Your task to perform on an android device: delete a single message in the gmail app Image 0: 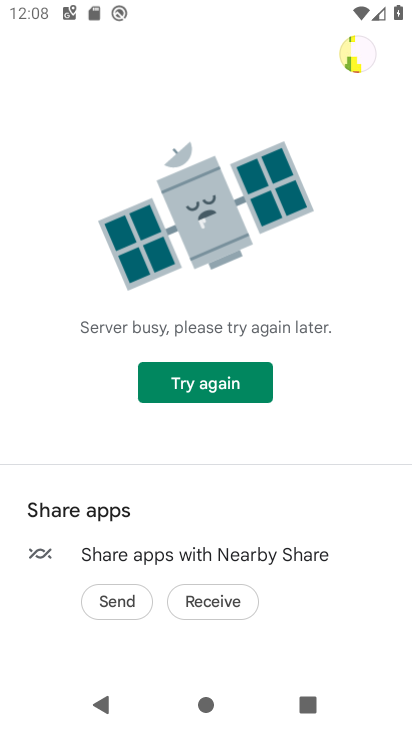
Step 0: press home button
Your task to perform on an android device: delete a single message in the gmail app Image 1: 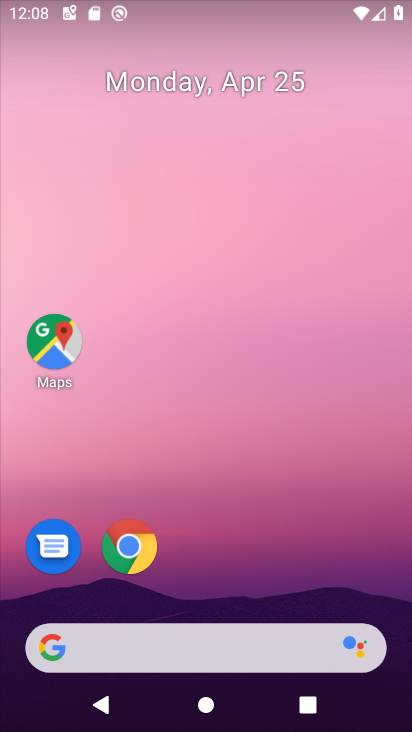
Step 1: drag from (219, 555) to (246, 88)
Your task to perform on an android device: delete a single message in the gmail app Image 2: 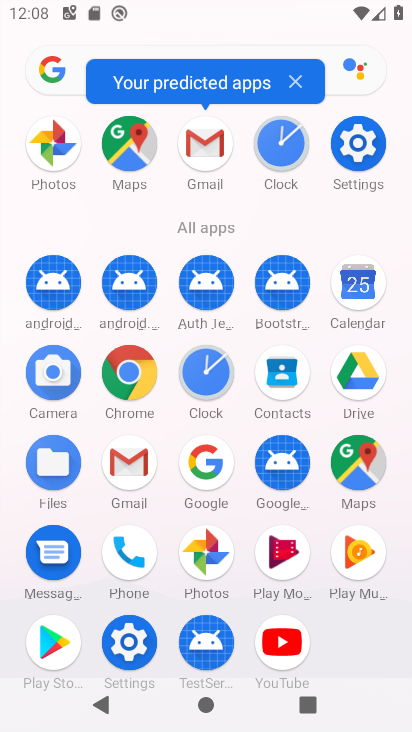
Step 2: click (203, 147)
Your task to perform on an android device: delete a single message in the gmail app Image 3: 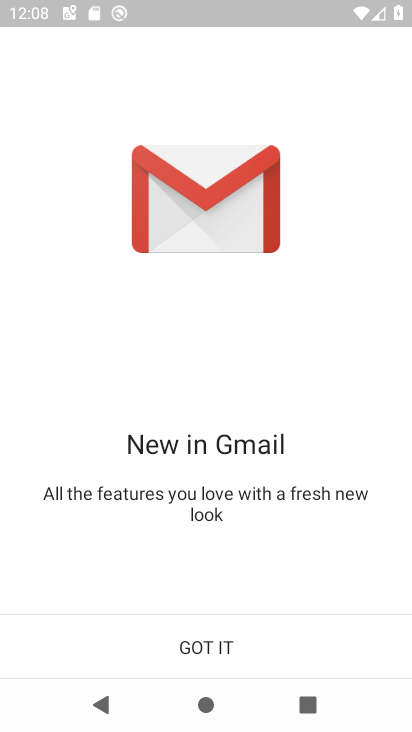
Step 3: click (193, 656)
Your task to perform on an android device: delete a single message in the gmail app Image 4: 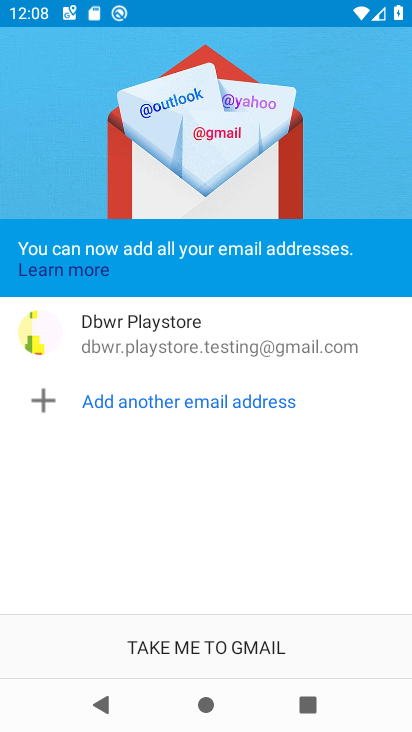
Step 4: click (159, 623)
Your task to perform on an android device: delete a single message in the gmail app Image 5: 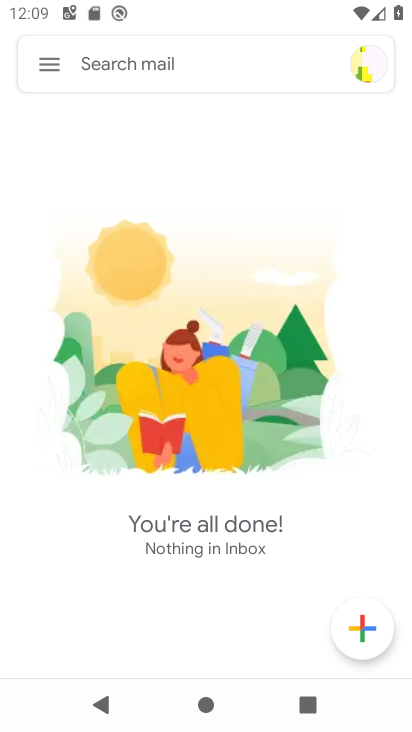
Step 5: click (53, 57)
Your task to perform on an android device: delete a single message in the gmail app Image 6: 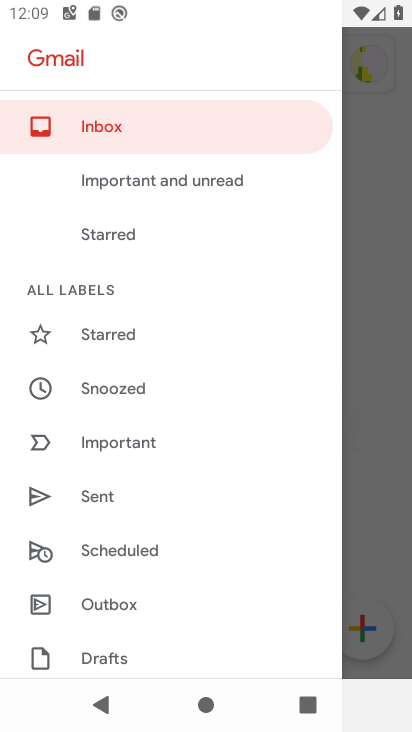
Step 6: task complete